Your task to perform on an android device: Open Google Image 0: 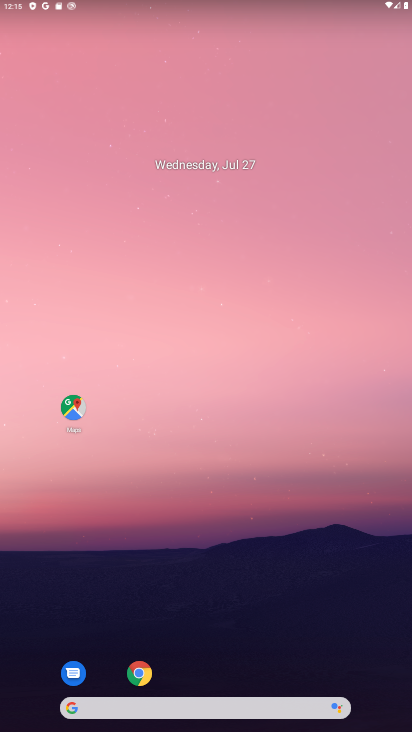
Step 0: drag from (244, 684) to (213, 8)
Your task to perform on an android device: Open Google Image 1: 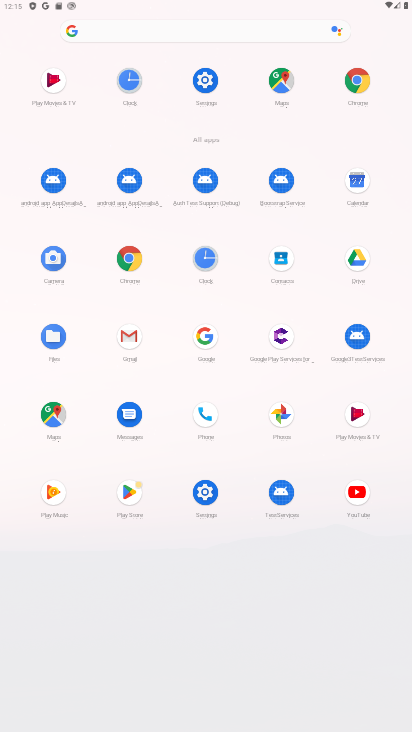
Step 1: click (197, 333)
Your task to perform on an android device: Open Google Image 2: 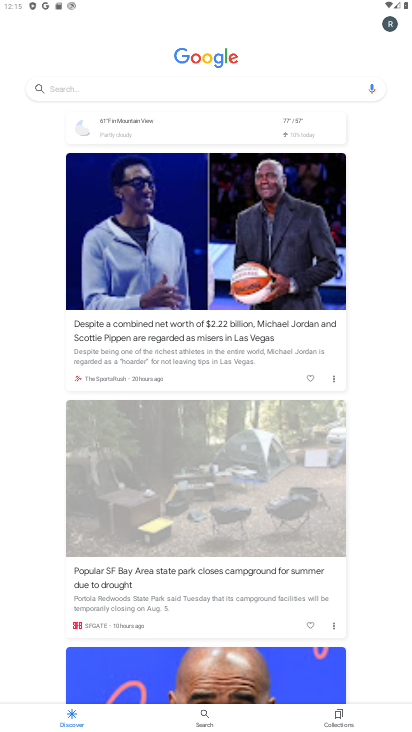
Step 2: task complete